Your task to perform on an android device: What's on my calendar today? Image 0: 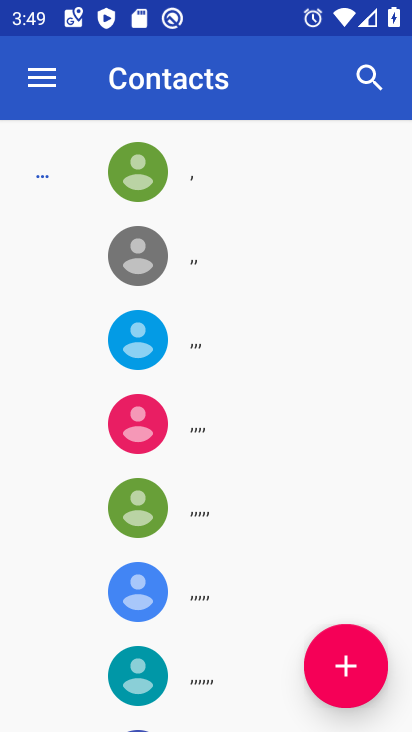
Step 0: press home button
Your task to perform on an android device: What's on my calendar today? Image 1: 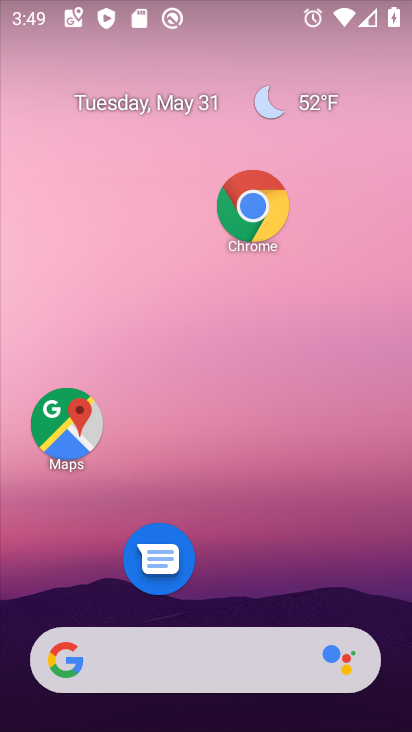
Step 1: drag from (216, 586) to (204, 198)
Your task to perform on an android device: What's on my calendar today? Image 2: 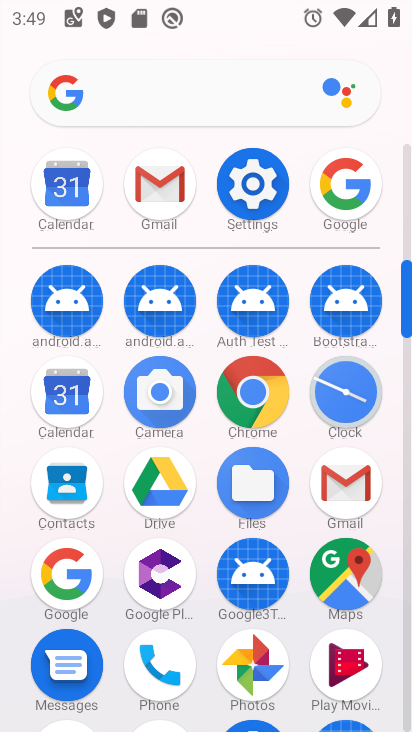
Step 2: click (67, 399)
Your task to perform on an android device: What's on my calendar today? Image 3: 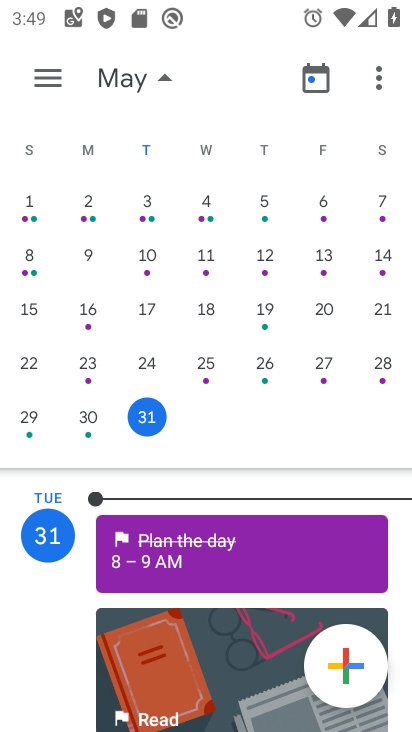
Step 3: click (149, 422)
Your task to perform on an android device: What's on my calendar today? Image 4: 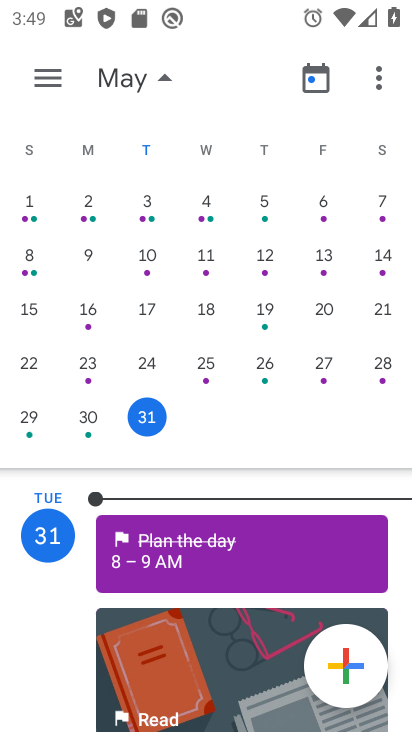
Step 4: task complete